Your task to perform on an android device: Search for the new Apple Watch on Best Buy Image 0: 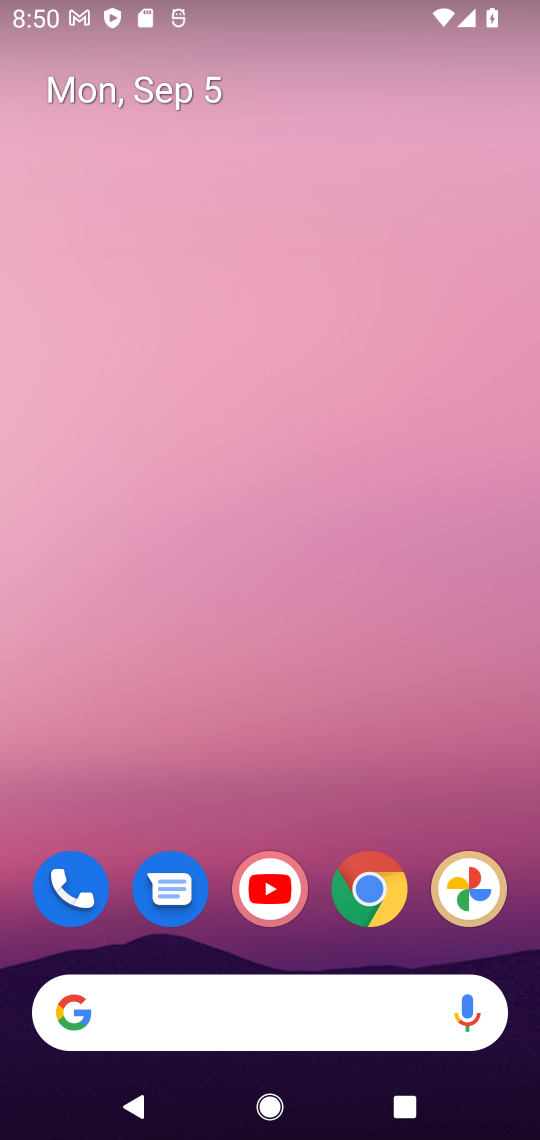
Step 0: click (270, 1010)
Your task to perform on an android device: Search for the new Apple Watch on Best Buy Image 1: 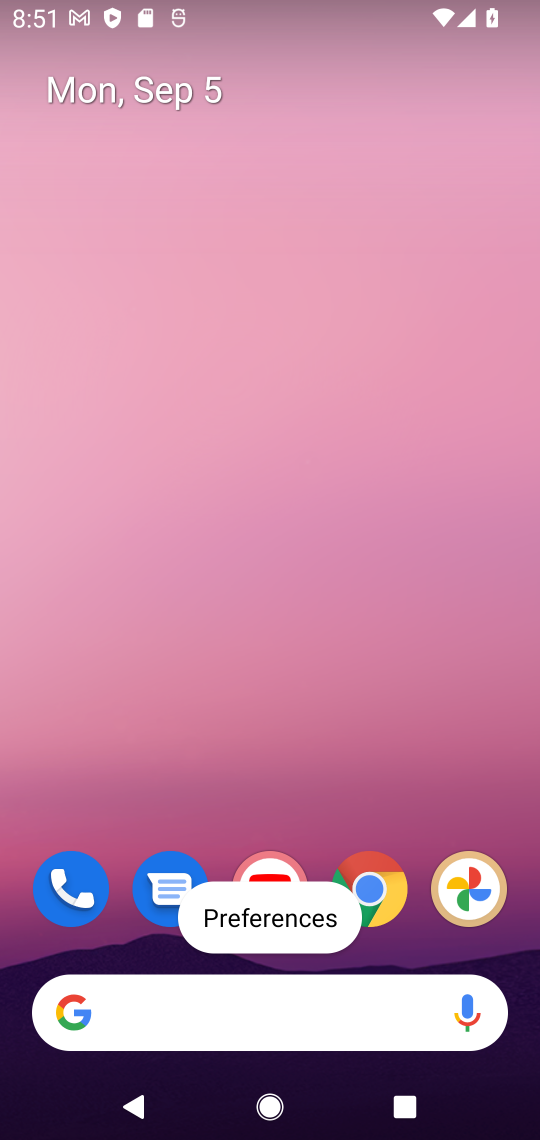
Step 1: click (242, 1027)
Your task to perform on an android device: Search for the new Apple Watch on Best Buy Image 2: 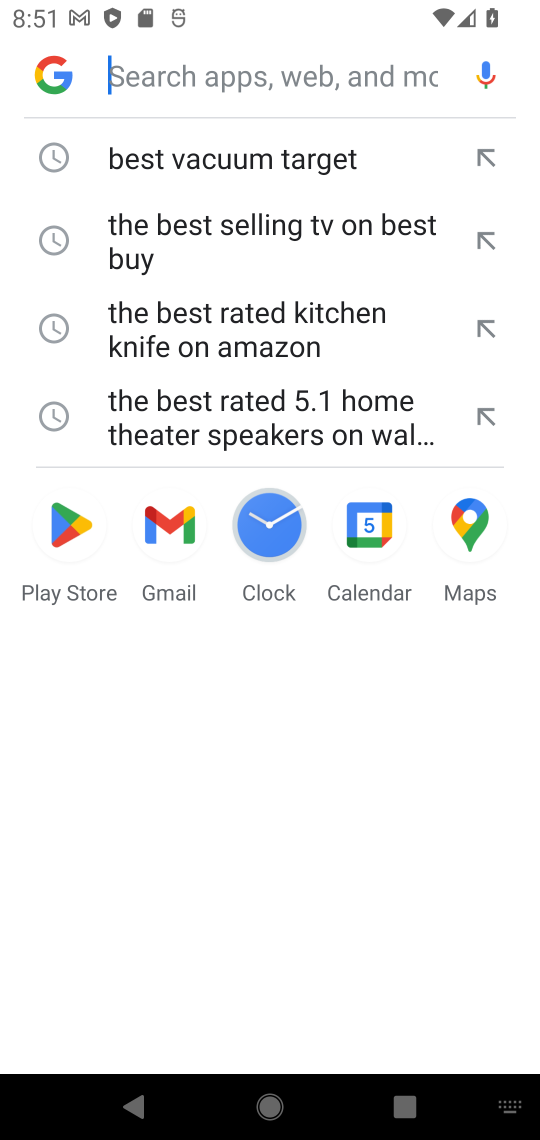
Step 2: type "the new Apple Watch on Best Buy"
Your task to perform on an android device: Search for the new Apple Watch on Best Buy Image 3: 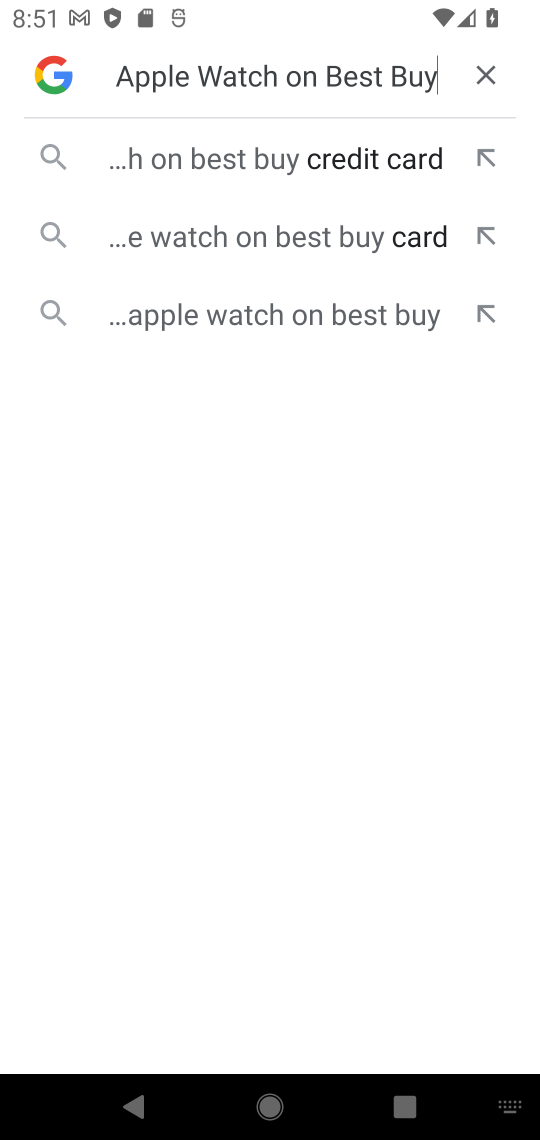
Step 3: click (247, 326)
Your task to perform on an android device: Search for the new Apple Watch on Best Buy Image 4: 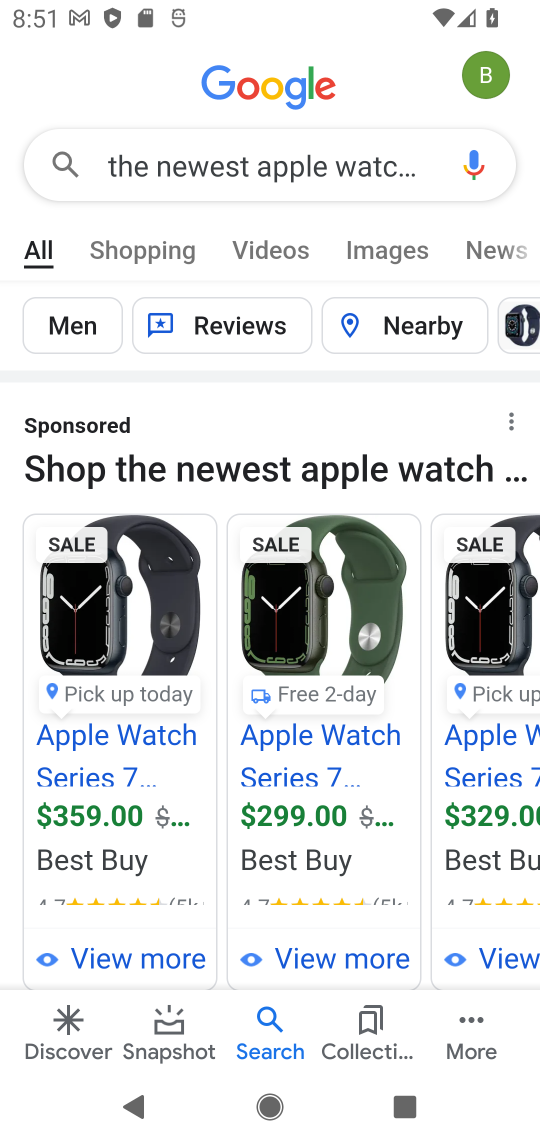
Step 4: task complete